Your task to perform on an android device: Open settings Image 0: 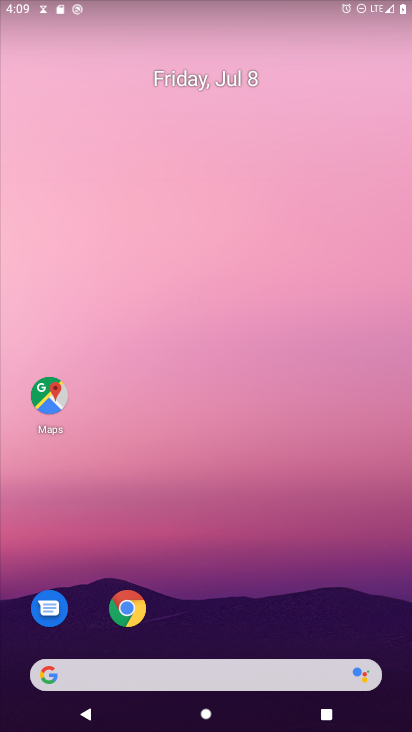
Step 0: drag from (199, 675) to (409, 125)
Your task to perform on an android device: Open settings Image 1: 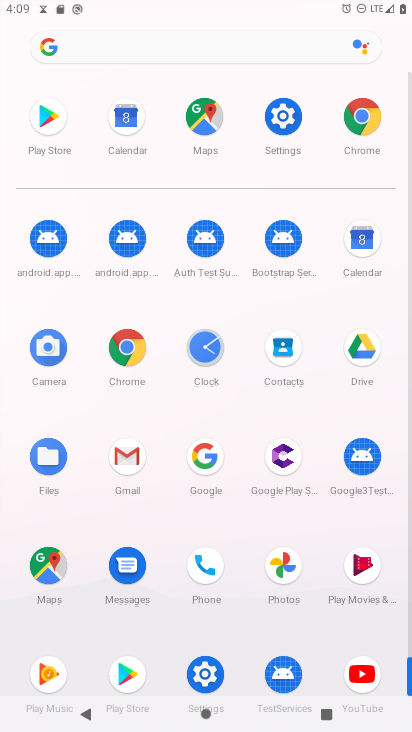
Step 1: click (290, 115)
Your task to perform on an android device: Open settings Image 2: 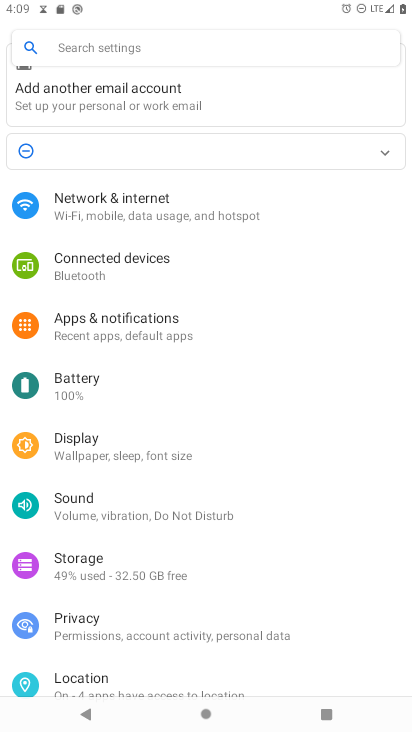
Step 2: task complete